Your task to perform on an android device: Do I have any events this weekend? Image 0: 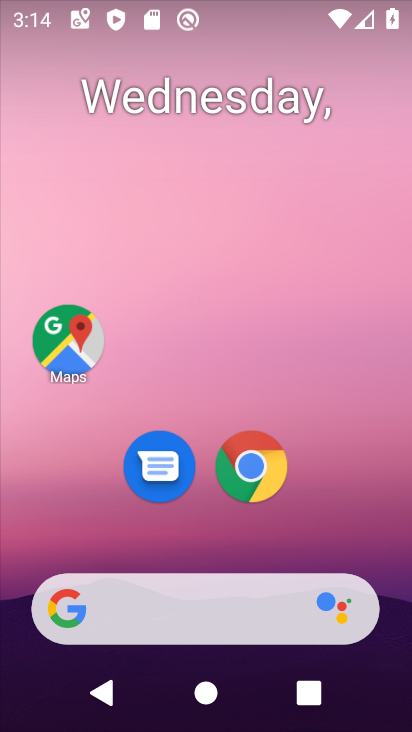
Step 0: drag from (250, 577) to (120, 35)
Your task to perform on an android device: Do I have any events this weekend? Image 1: 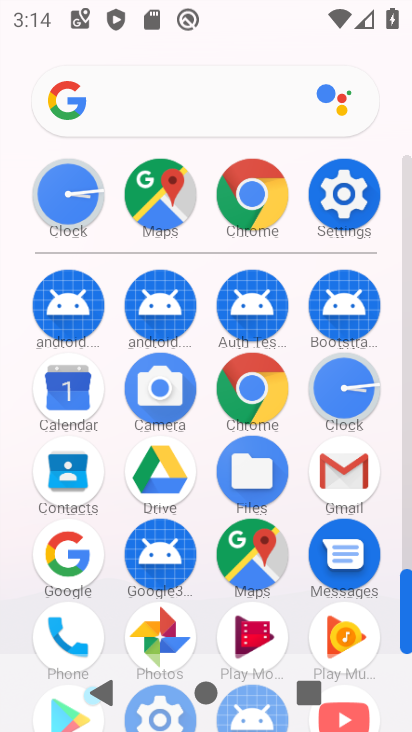
Step 1: click (75, 401)
Your task to perform on an android device: Do I have any events this weekend? Image 2: 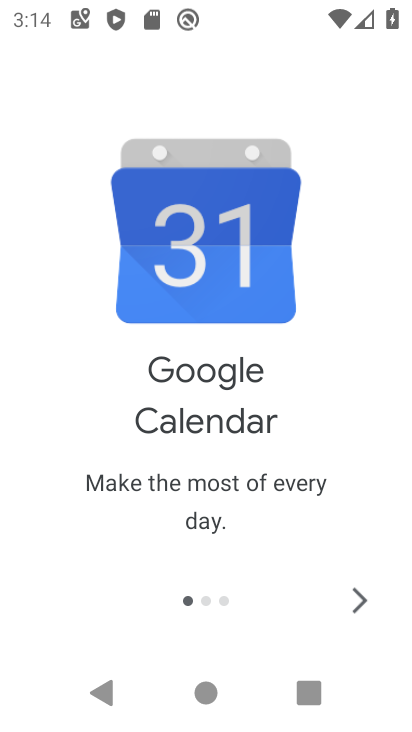
Step 2: click (364, 611)
Your task to perform on an android device: Do I have any events this weekend? Image 3: 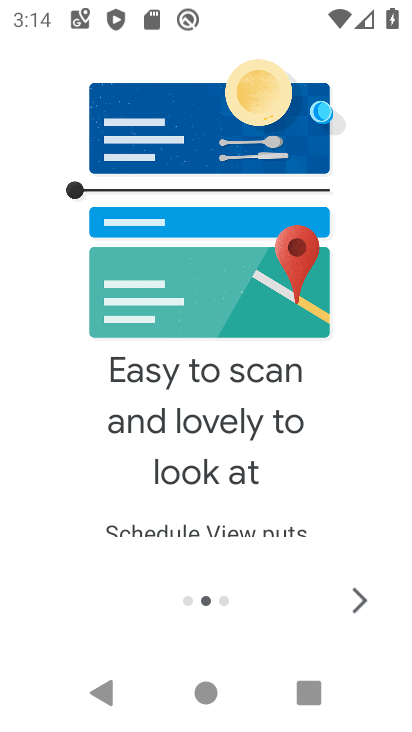
Step 3: click (364, 611)
Your task to perform on an android device: Do I have any events this weekend? Image 4: 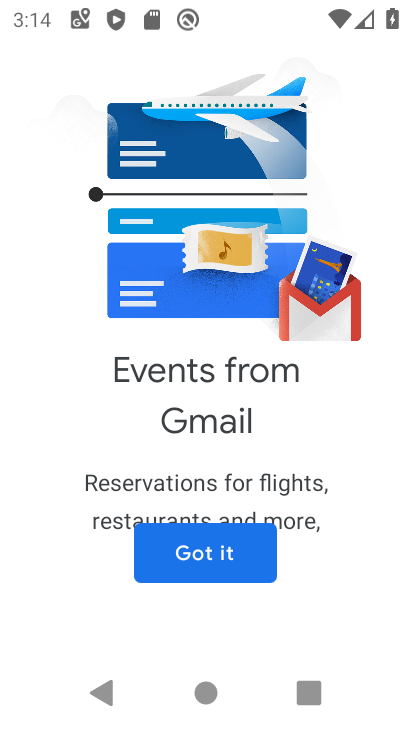
Step 4: click (254, 563)
Your task to perform on an android device: Do I have any events this weekend? Image 5: 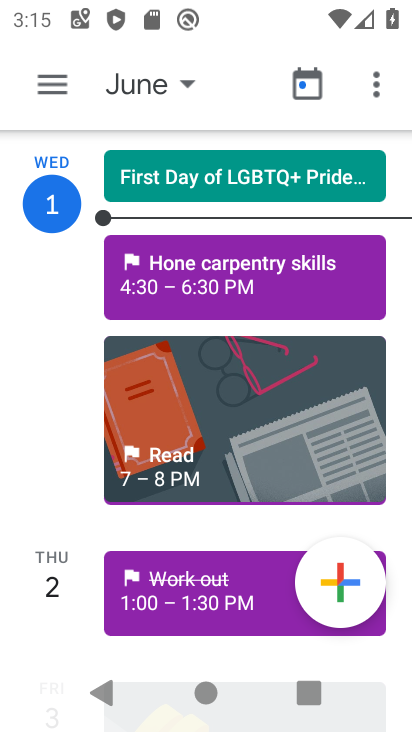
Step 5: task complete